Your task to perform on an android device: turn on showing notifications on the lock screen Image 0: 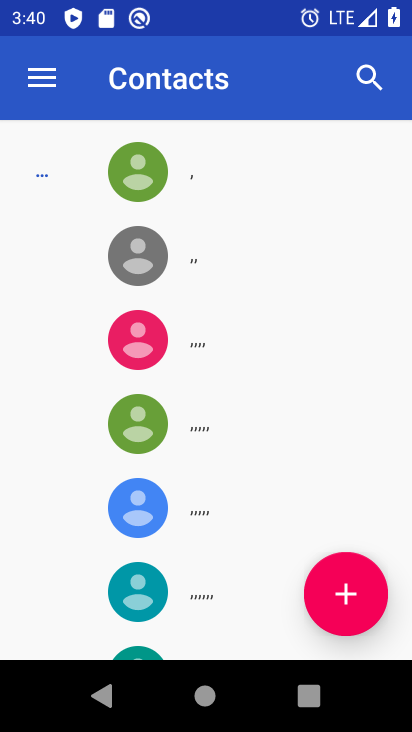
Step 0: press home button
Your task to perform on an android device: turn on showing notifications on the lock screen Image 1: 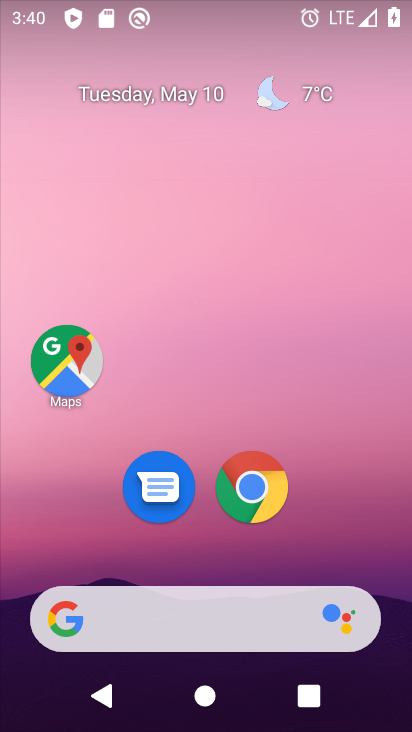
Step 1: drag from (356, 518) to (334, 150)
Your task to perform on an android device: turn on showing notifications on the lock screen Image 2: 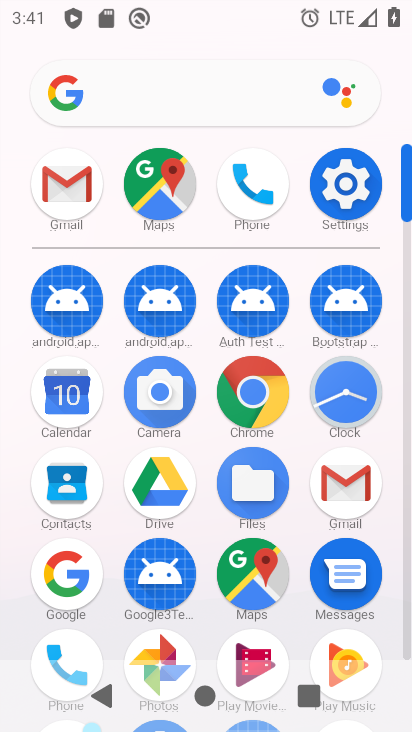
Step 2: click (356, 169)
Your task to perform on an android device: turn on showing notifications on the lock screen Image 3: 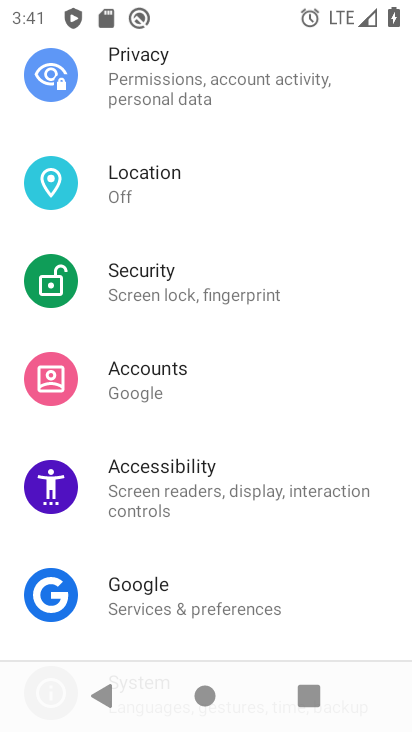
Step 3: drag from (246, 161) to (271, 578)
Your task to perform on an android device: turn on showing notifications on the lock screen Image 4: 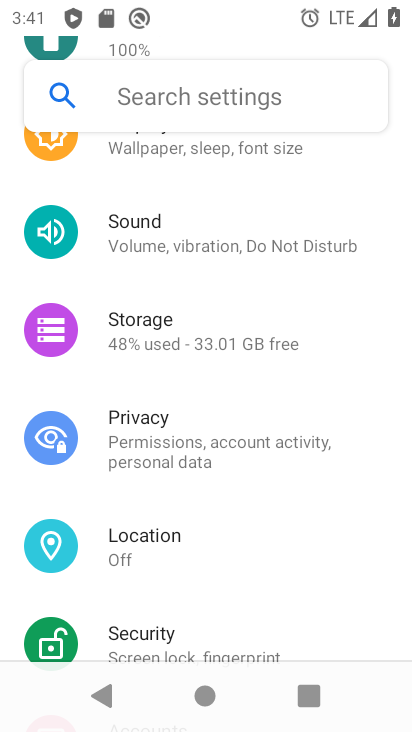
Step 4: drag from (242, 192) to (239, 561)
Your task to perform on an android device: turn on showing notifications on the lock screen Image 5: 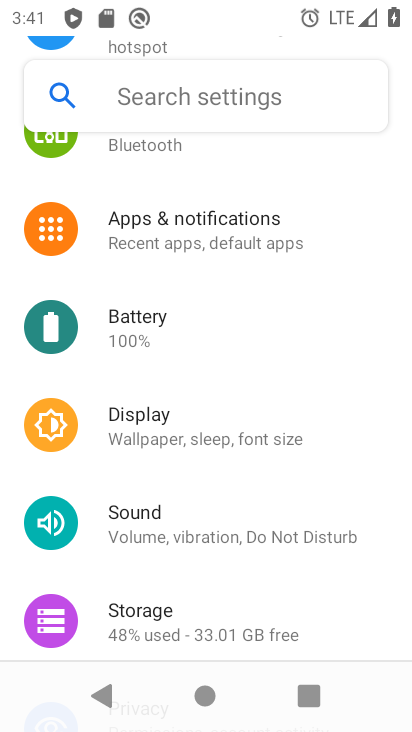
Step 5: click (200, 234)
Your task to perform on an android device: turn on showing notifications on the lock screen Image 6: 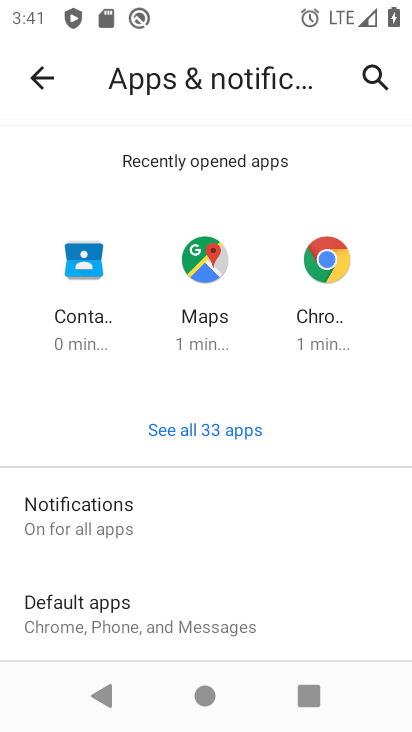
Step 6: drag from (287, 565) to (265, 299)
Your task to perform on an android device: turn on showing notifications on the lock screen Image 7: 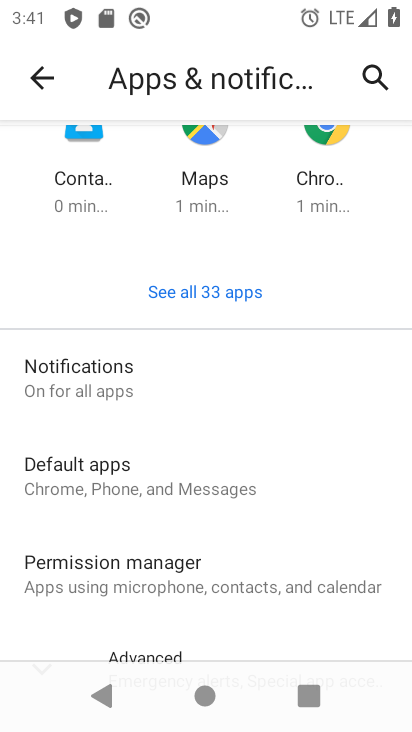
Step 7: click (105, 383)
Your task to perform on an android device: turn on showing notifications on the lock screen Image 8: 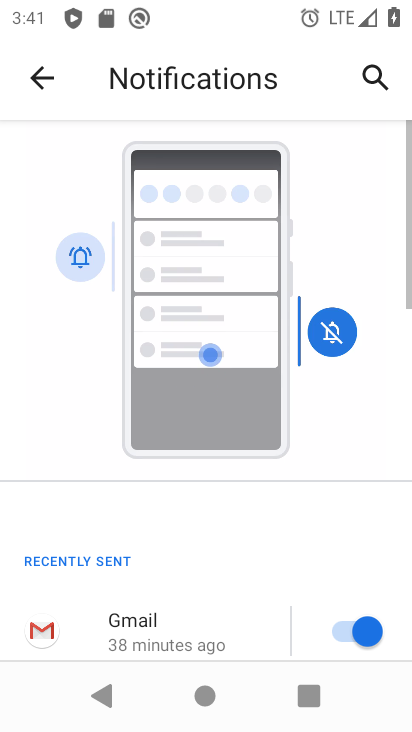
Step 8: drag from (234, 565) to (201, 144)
Your task to perform on an android device: turn on showing notifications on the lock screen Image 9: 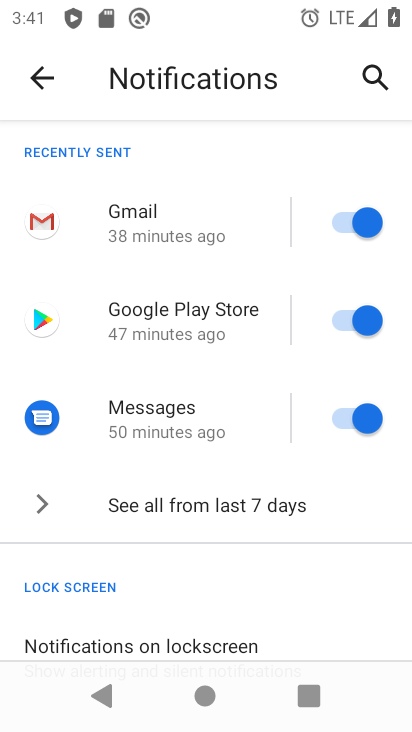
Step 9: drag from (221, 521) to (228, 123)
Your task to perform on an android device: turn on showing notifications on the lock screen Image 10: 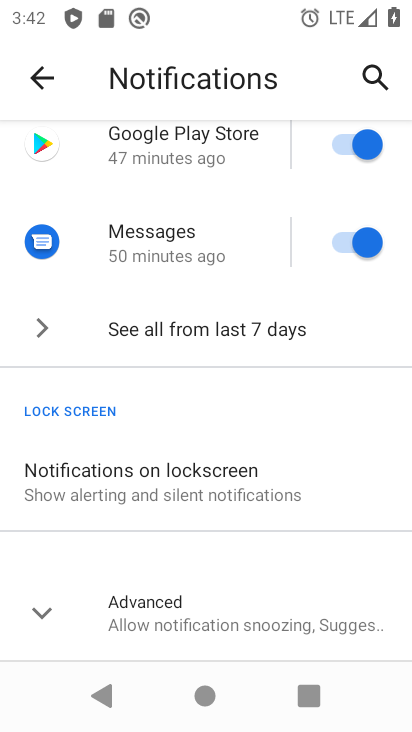
Step 10: drag from (273, 473) to (249, 145)
Your task to perform on an android device: turn on showing notifications on the lock screen Image 11: 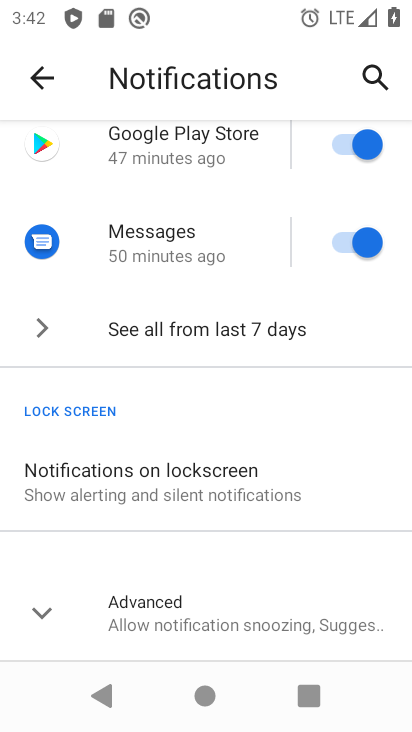
Step 11: click (220, 458)
Your task to perform on an android device: turn on showing notifications on the lock screen Image 12: 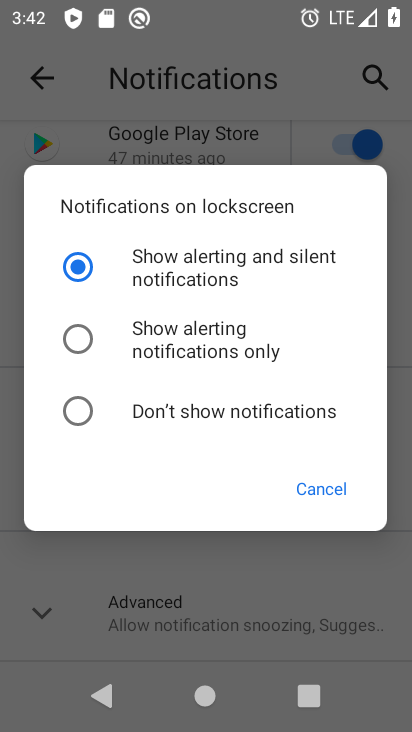
Step 12: click (217, 336)
Your task to perform on an android device: turn on showing notifications on the lock screen Image 13: 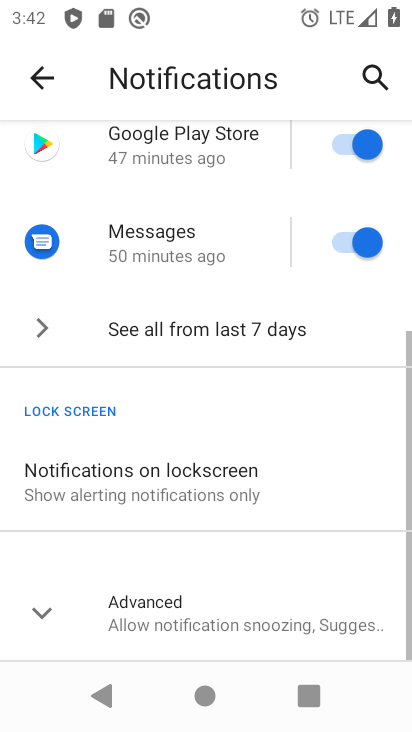
Step 13: task complete